Your task to perform on an android device: Show me productivity apps on the Play Store Image 0: 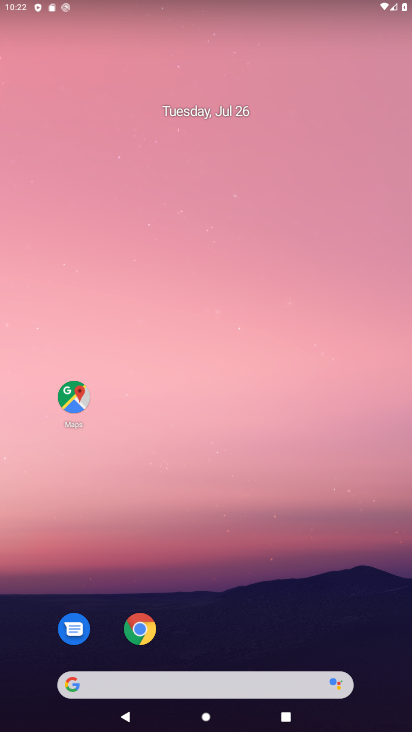
Step 0: drag from (306, 644) to (263, 42)
Your task to perform on an android device: Show me productivity apps on the Play Store Image 1: 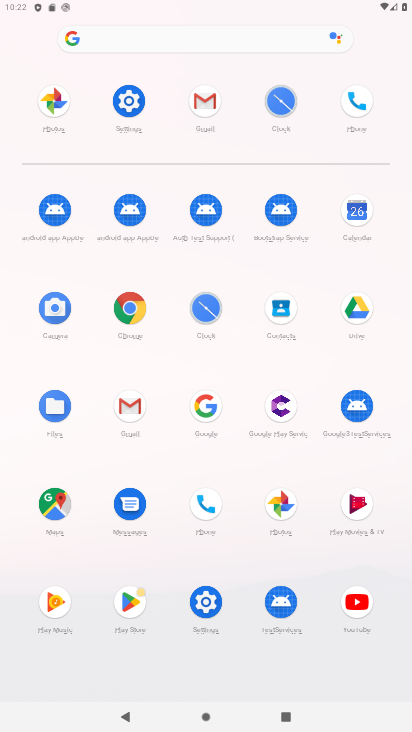
Step 1: click (122, 610)
Your task to perform on an android device: Show me productivity apps on the Play Store Image 2: 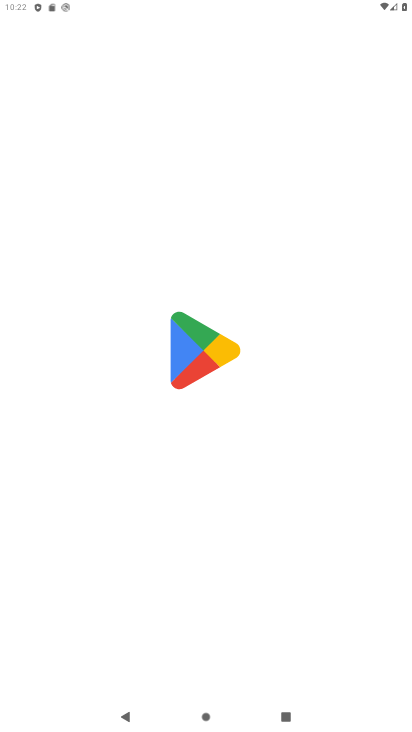
Step 2: task complete